Your task to perform on an android device: Open the map Image 0: 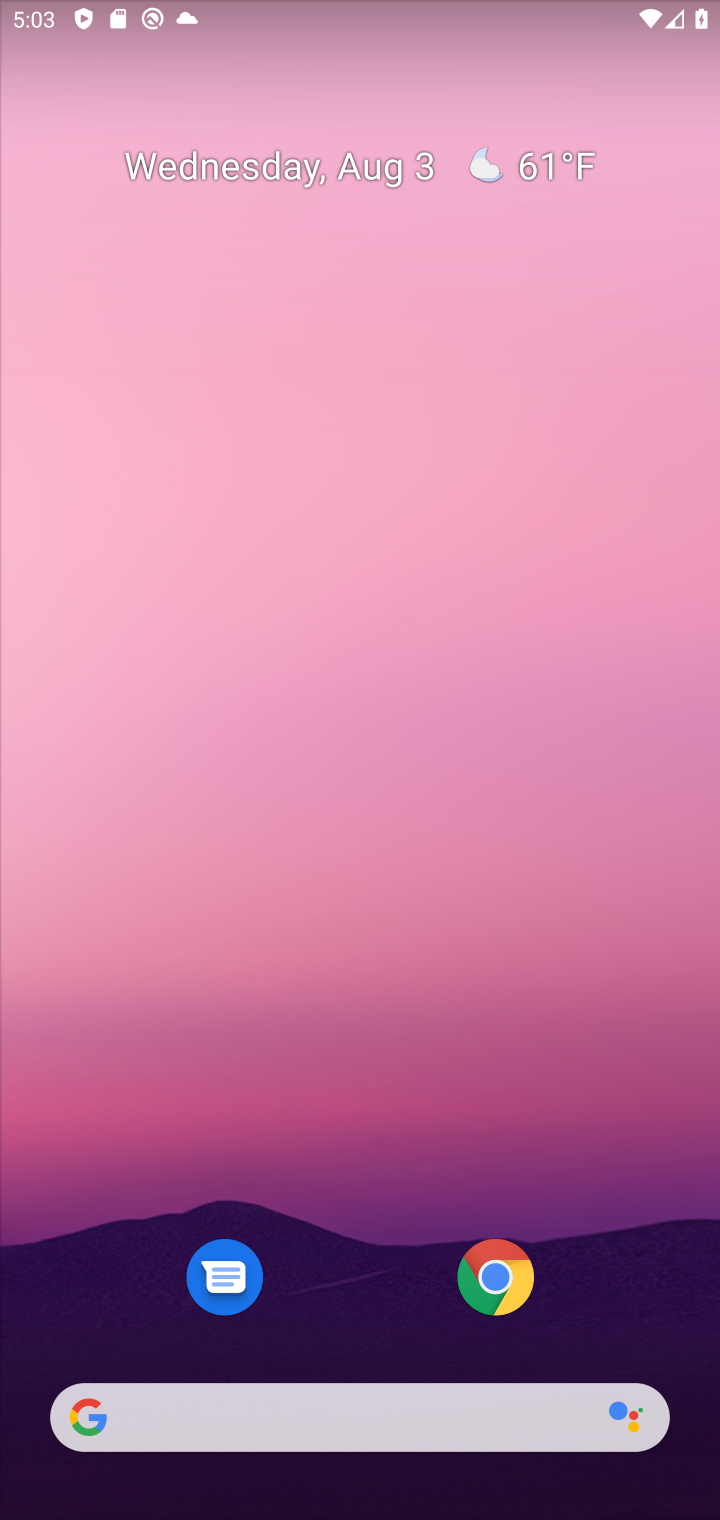
Step 0: drag from (453, 609) to (509, 115)
Your task to perform on an android device: Open the map Image 1: 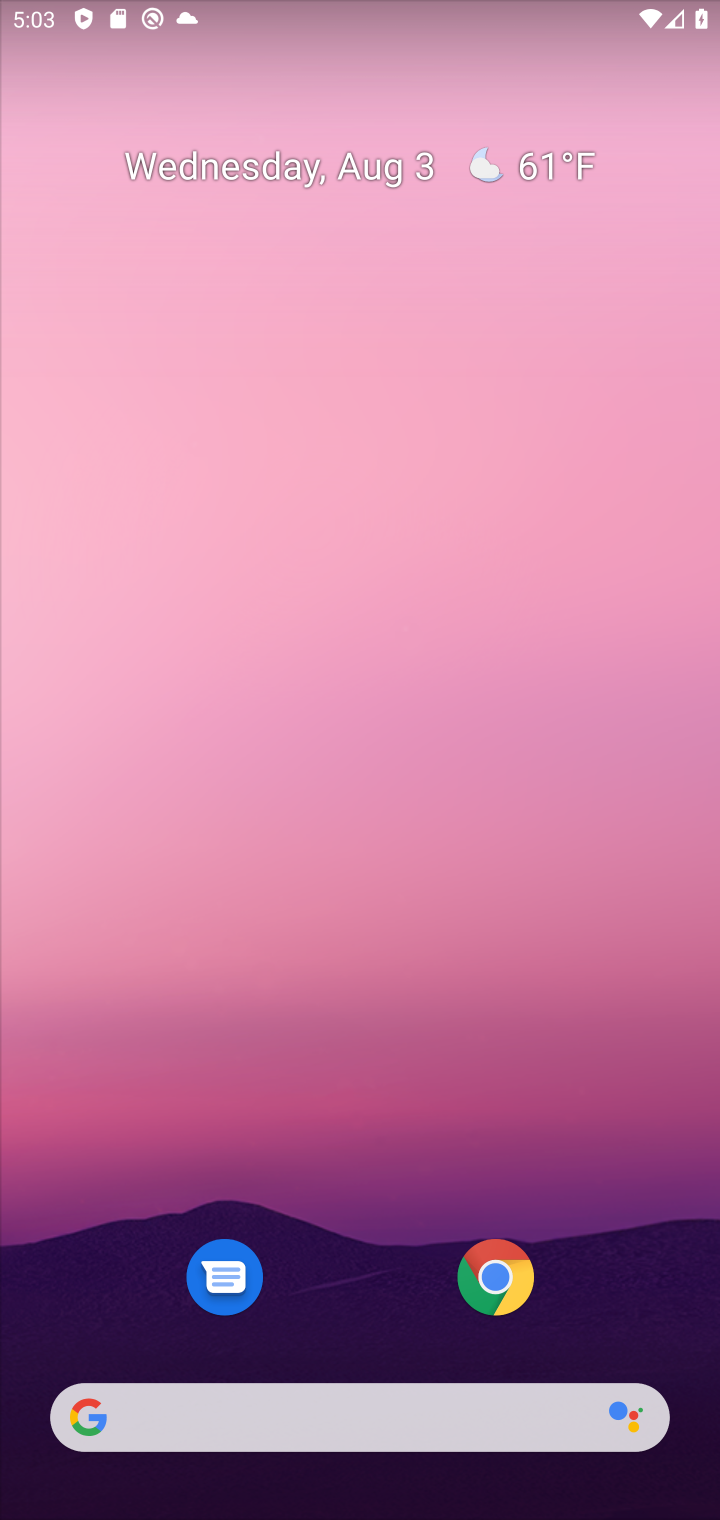
Step 1: drag from (349, 1025) to (458, 193)
Your task to perform on an android device: Open the map Image 2: 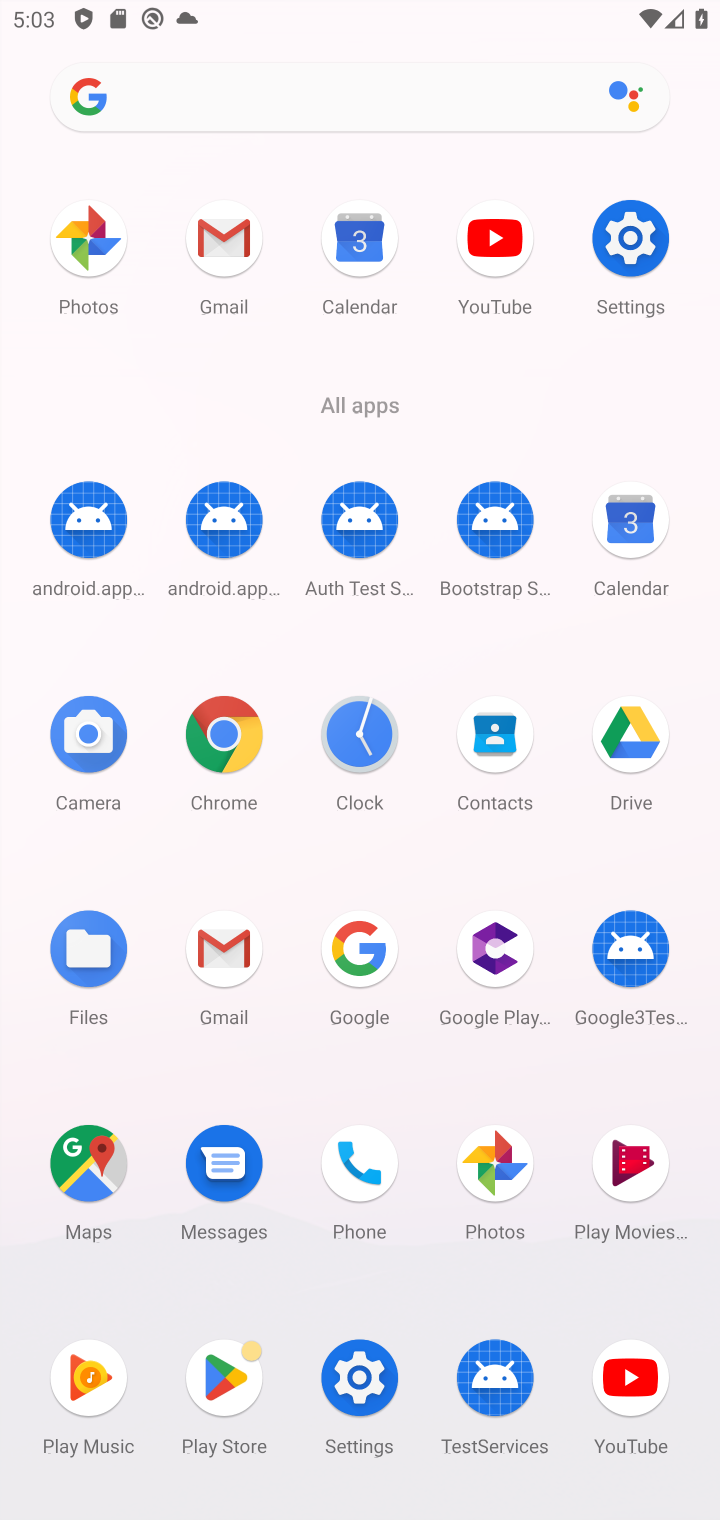
Step 2: click (86, 1162)
Your task to perform on an android device: Open the map Image 3: 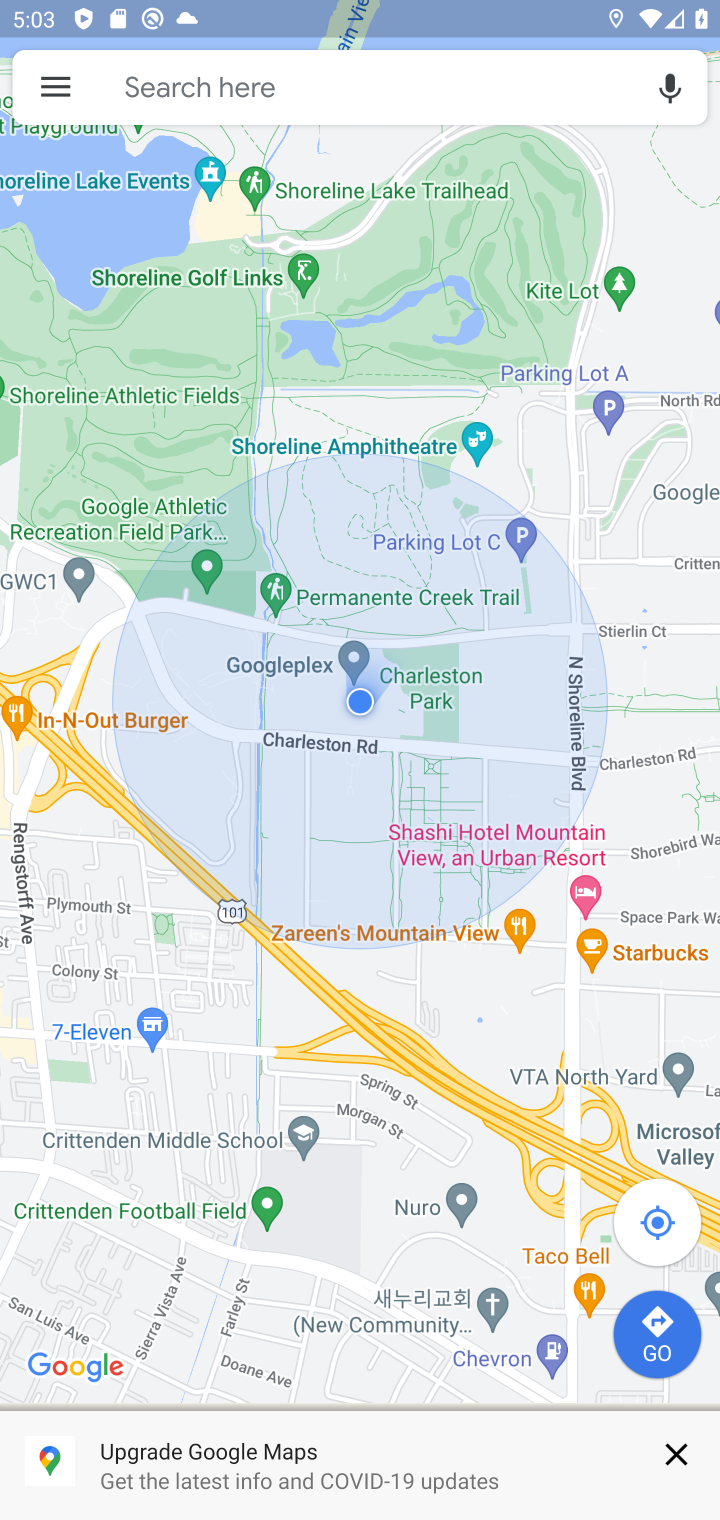
Step 3: task complete